Your task to perform on an android device: Open Chrome and go to the settings page Image 0: 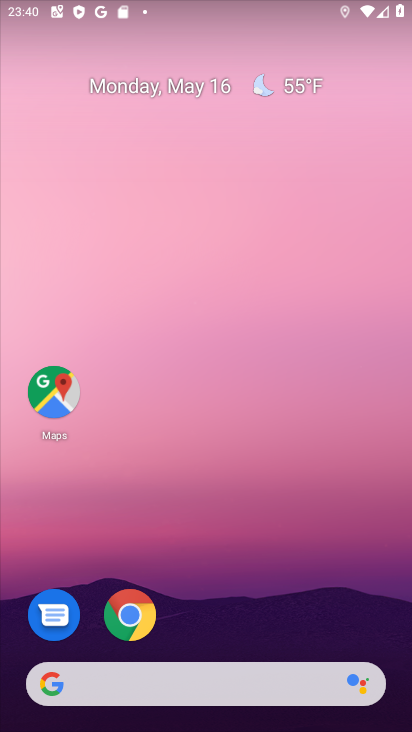
Step 0: click (142, 611)
Your task to perform on an android device: Open Chrome and go to the settings page Image 1: 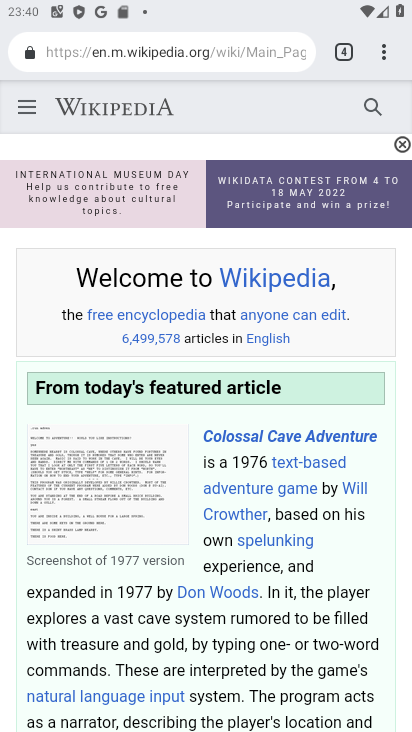
Step 1: click (378, 59)
Your task to perform on an android device: Open Chrome and go to the settings page Image 2: 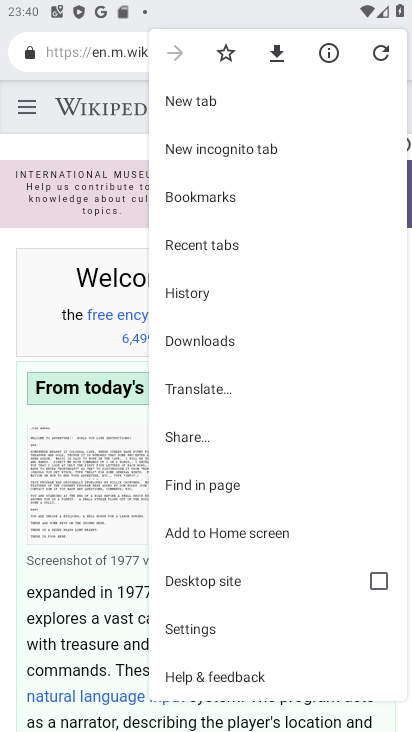
Step 2: click (204, 617)
Your task to perform on an android device: Open Chrome and go to the settings page Image 3: 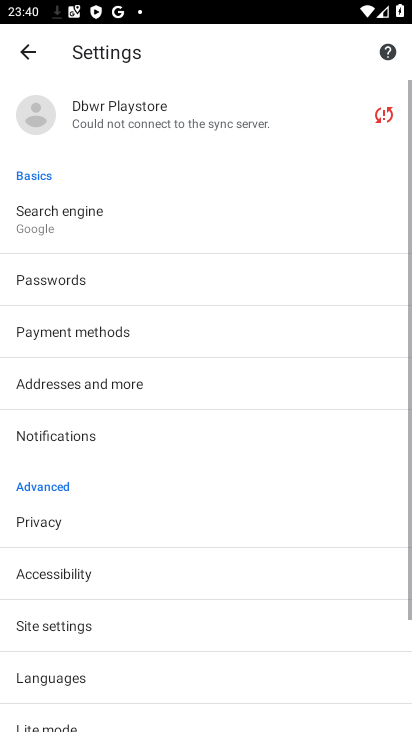
Step 3: task complete